Your task to perform on an android device: open the mobile data screen to see how much data has been used Image 0: 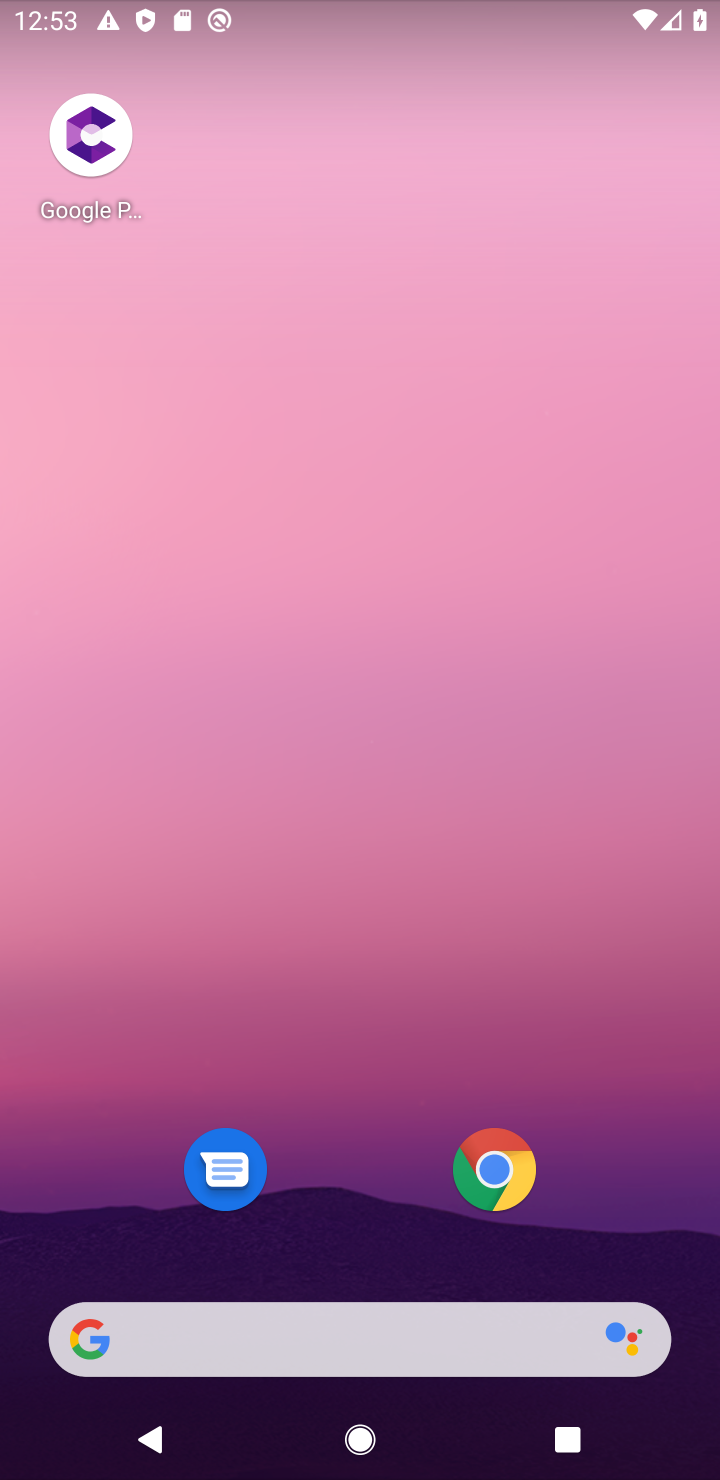
Step 0: drag from (332, 668) to (525, 4)
Your task to perform on an android device: open the mobile data screen to see how much data has been used Image 1: 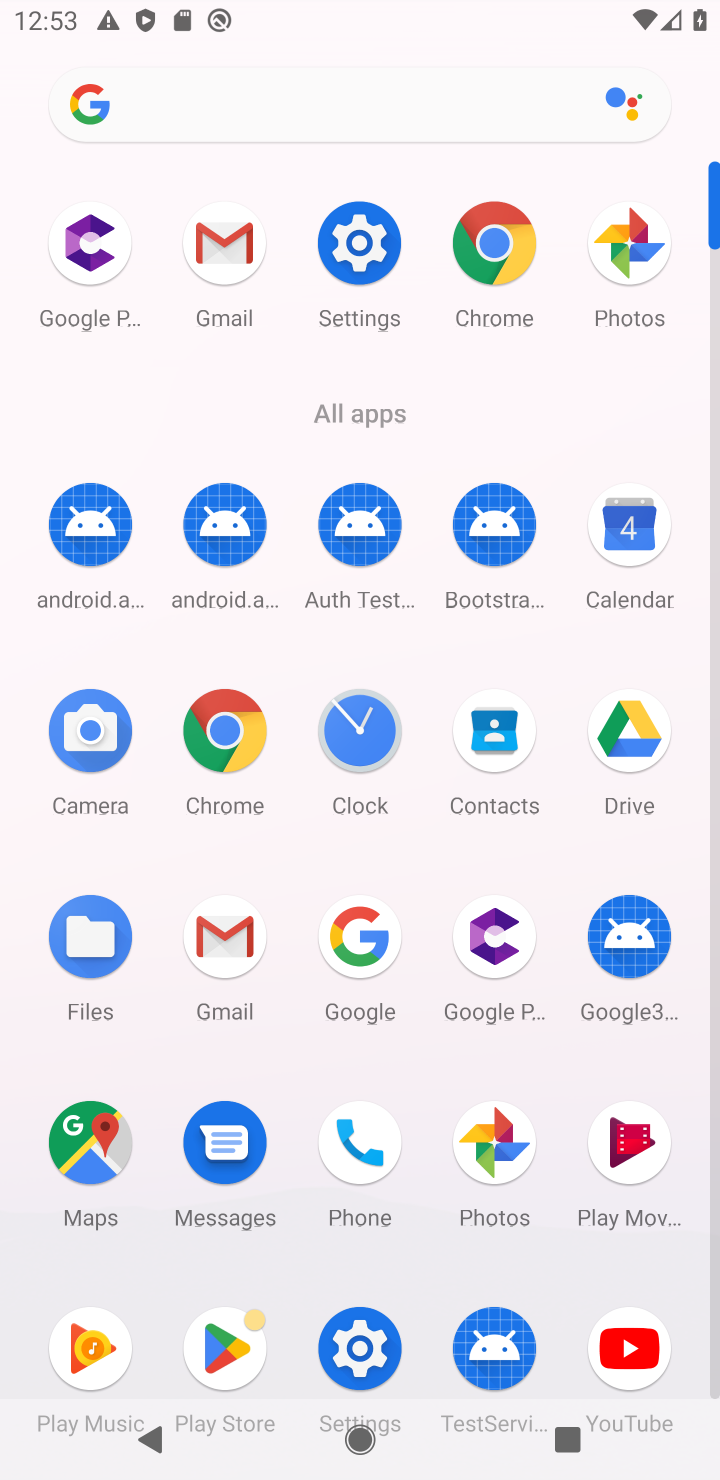
Step 1: click (352, 1332)
Your task to perform on an android device: open the mobile data screen to see how much data has been used Image 2: 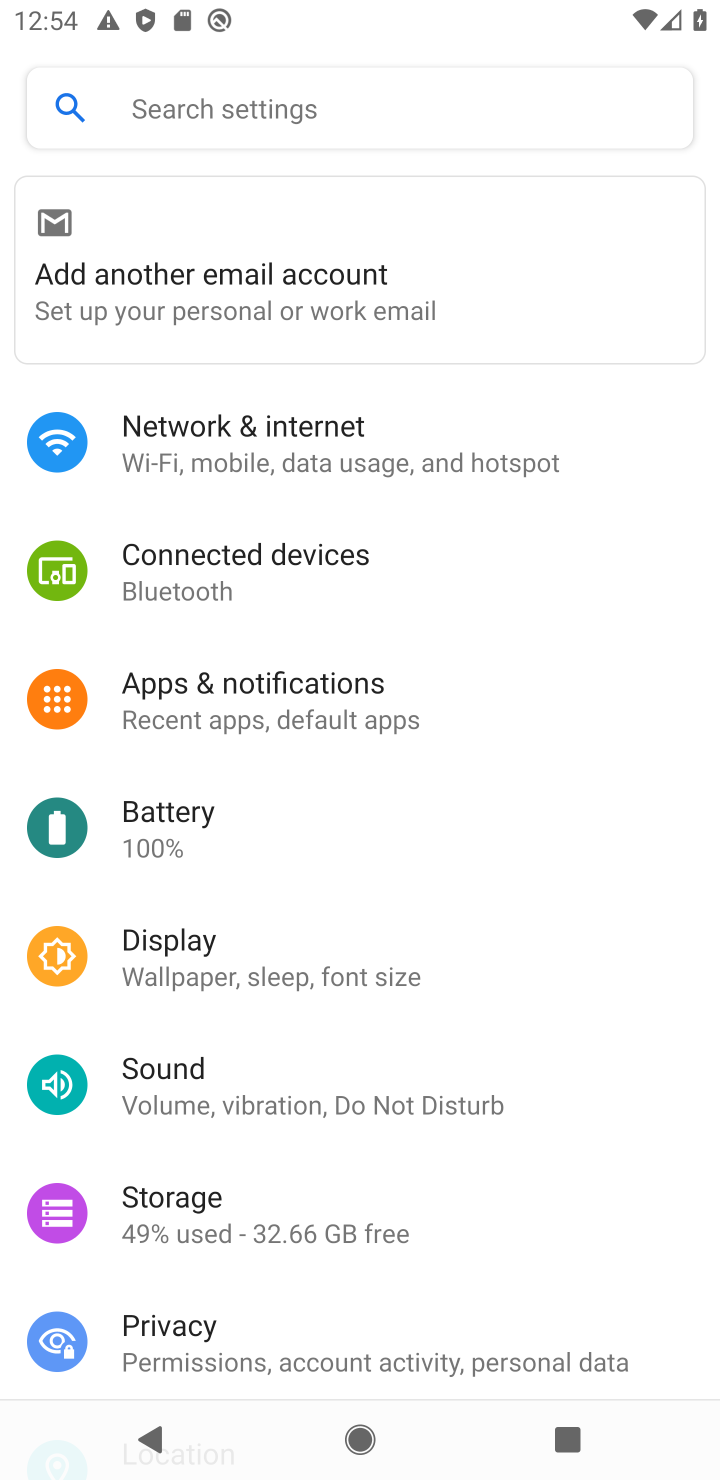
Step 2: click (323, 450)
Your task to perform on an android device: open the mobile data screen to see how much data has been used Image 3: 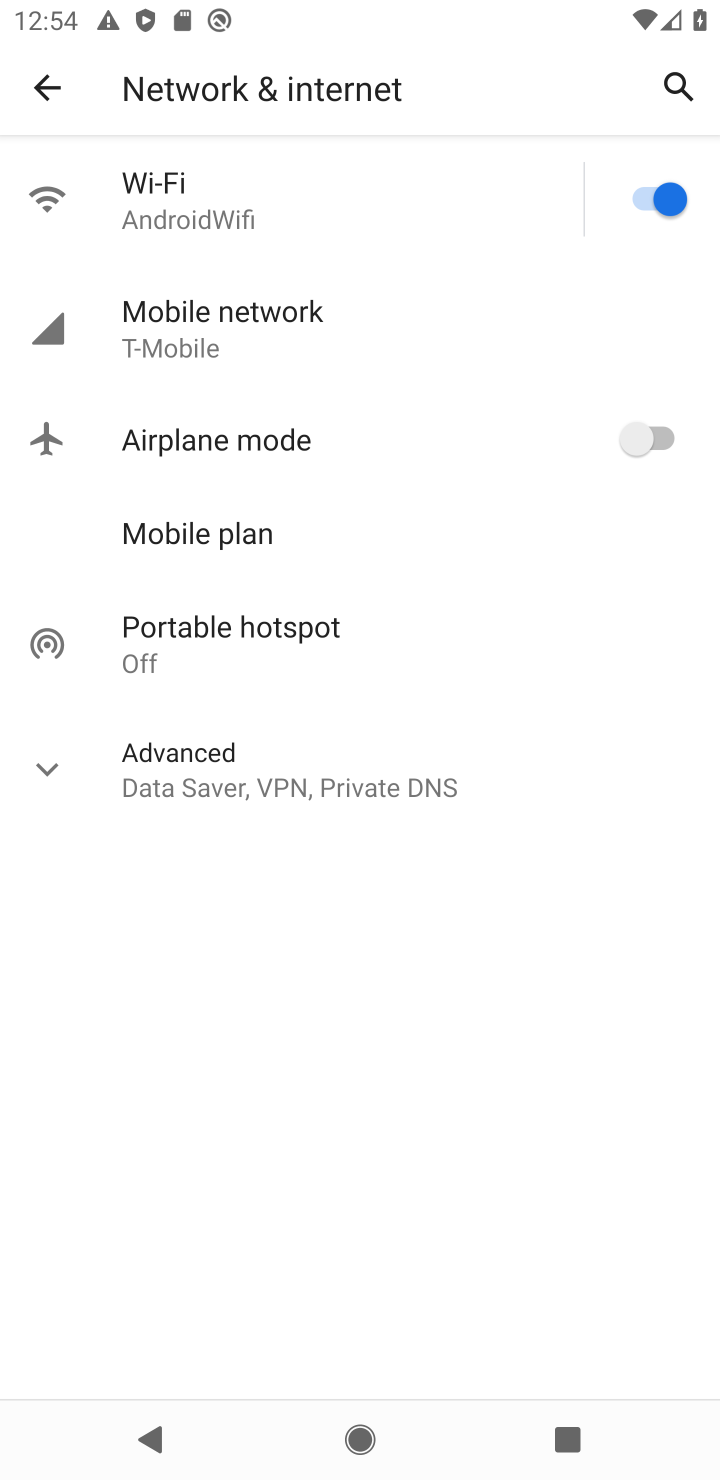
Step 3: click (210, 347)
Your task to perform on an android device: open the mobile data screen to see how much data has been used Image 4: 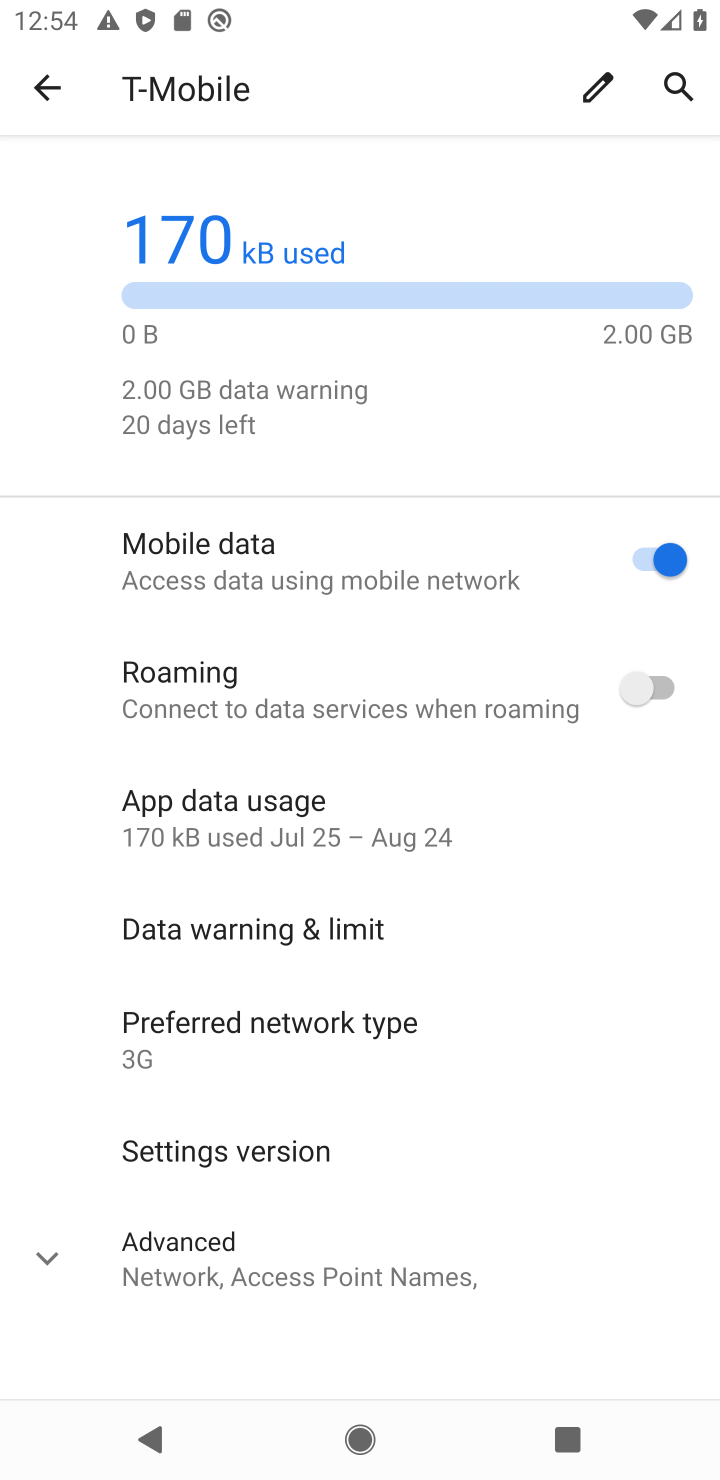
Step 4: click (277, 823)
Your task to perform on an android device: open the mobile data screen to see how much data has been used Image 5: 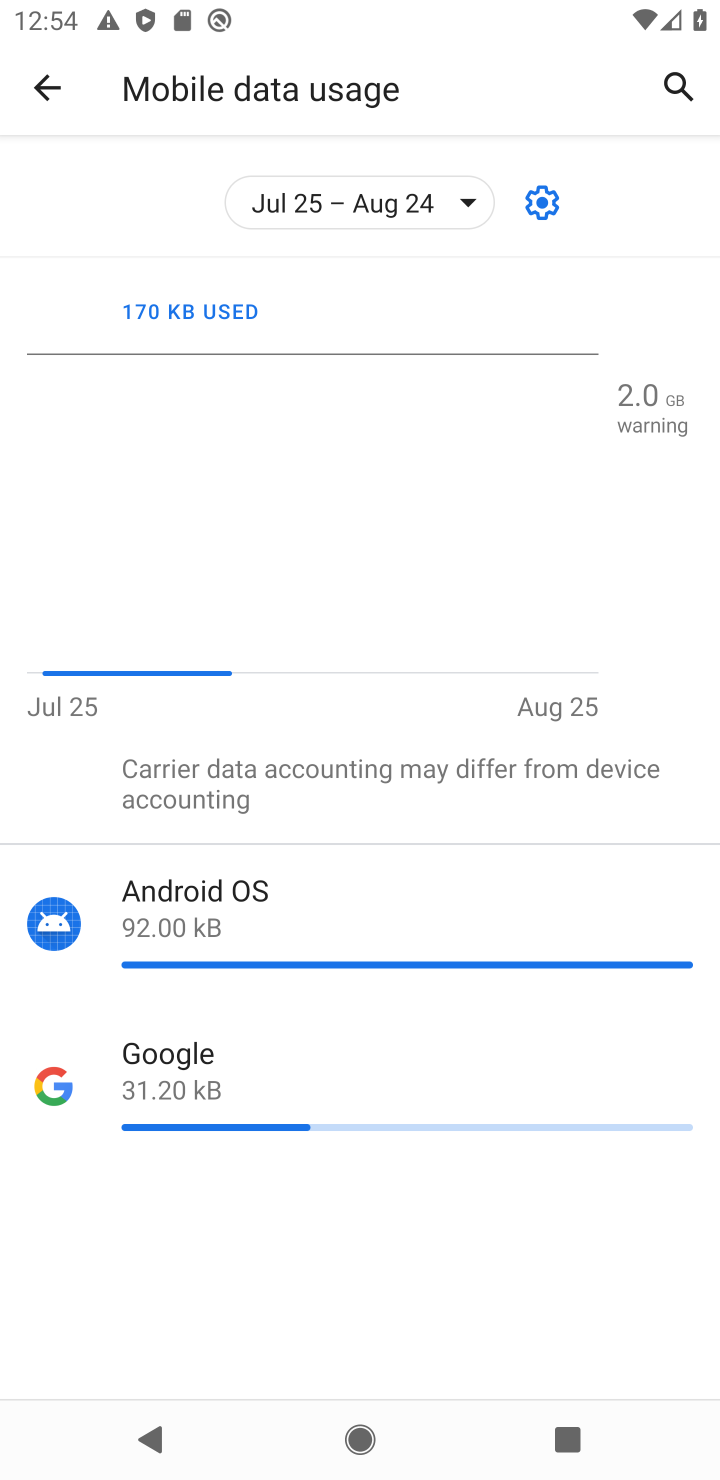
Step 5: task complete